Your task to perform on an android device: change your default location settings in chrome Image 0: 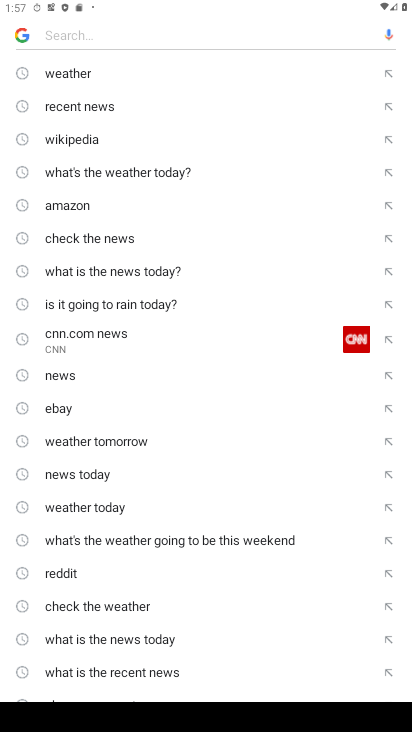
Step 0: press home button
Your task to perform on an android device: change your default location settings in chrome Image 1: 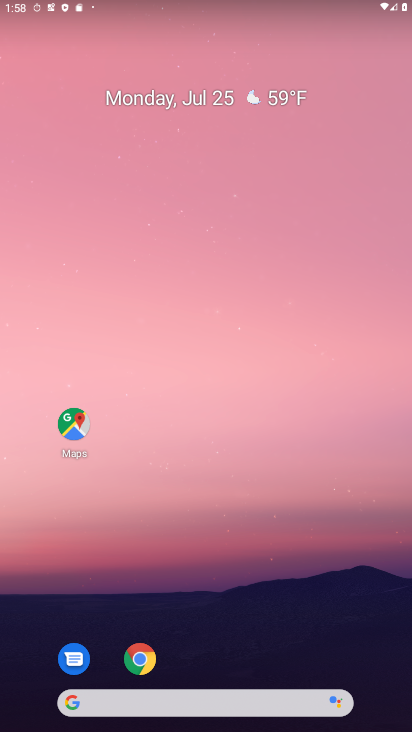
Step 1: click (145, 657)
Your task to perform on an android device: change your default location settings in chrome Image 2: 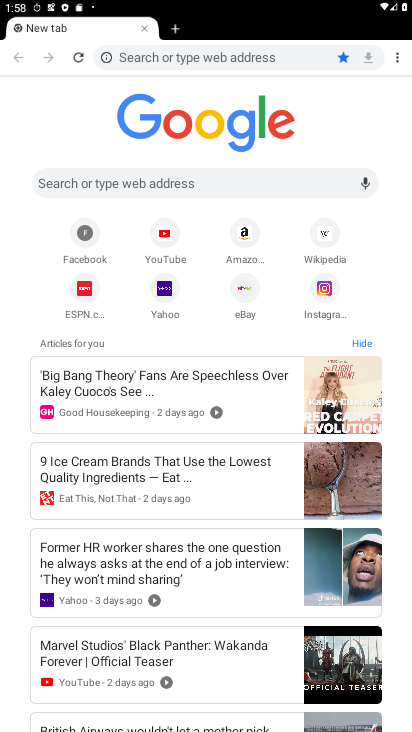
Step 2: click (399, 63)
Your task to perform on an android device: change your default location settings in chrome Image 3: 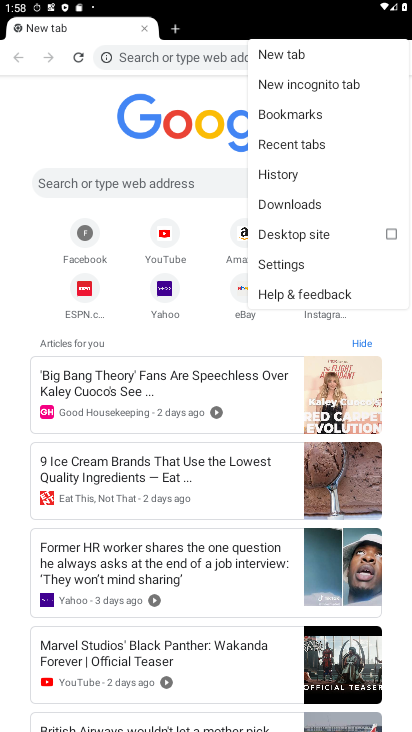
Step 3: click (296, 265)
Your task to perform on an android device: change your default location settings in chrome Image 4: 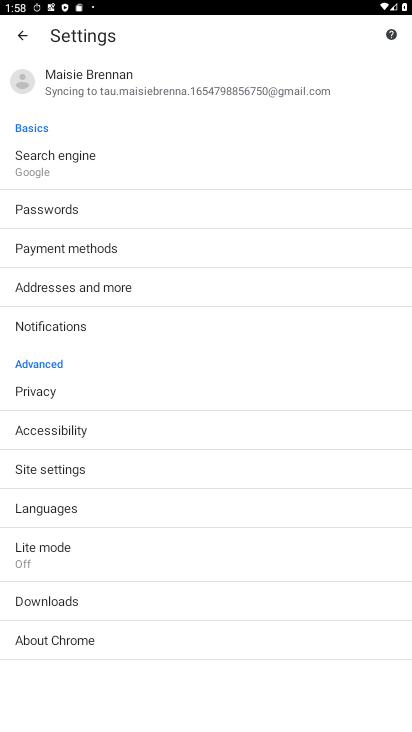
Step 4: click (71, 474)
Your task to perform on an android device: change your default location settings in chrome Image 5: 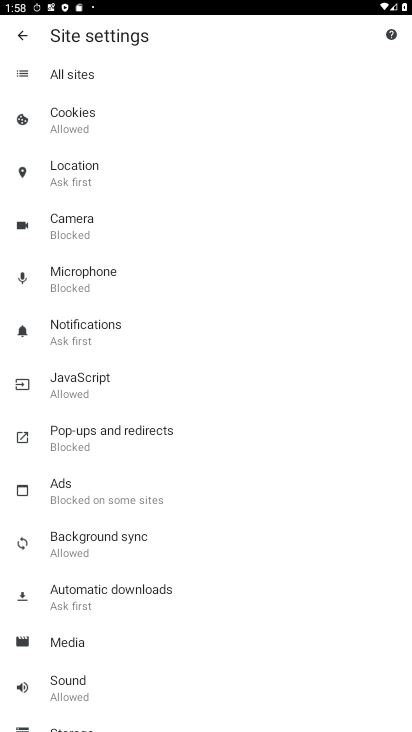
Step 5: click (82, 175)
Your task to perform on an android device: change your default location settings in chrome Image 6: 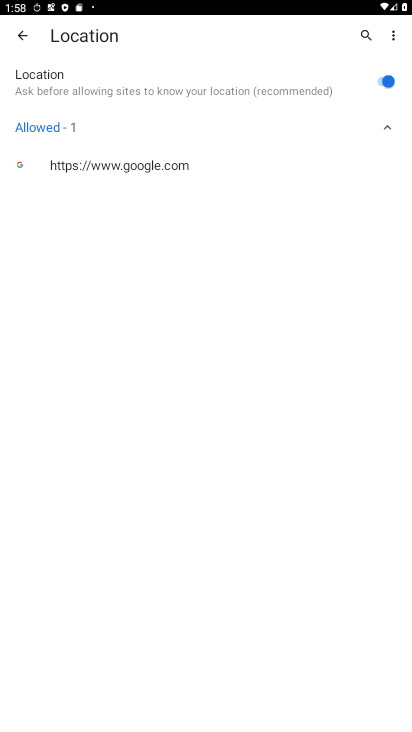
Step 6: click (395, 86)
Your task to perform on an android device: change your default location settings in chrome Image 7: 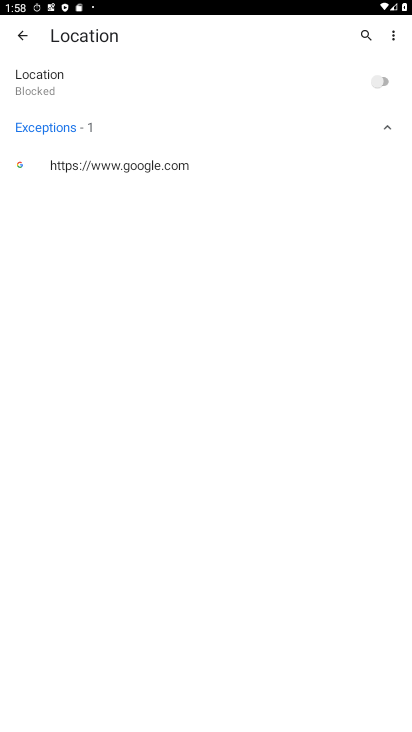
Step 7: task complete